Your task to perform on an android device: turn on airplane mode Image 0: 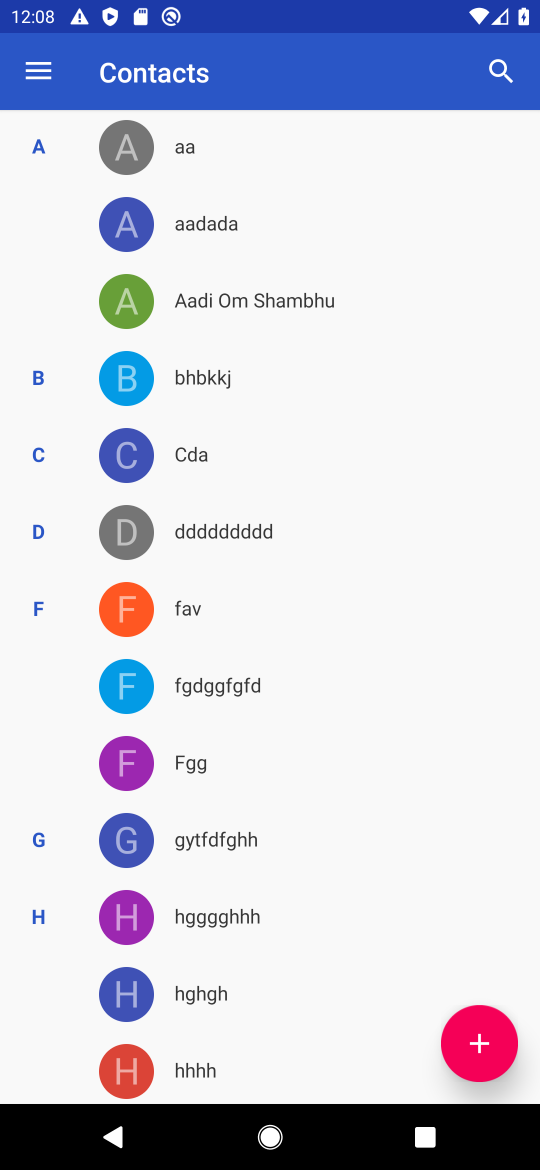
Step 0: drag from (504, 8) to (388, 774)
Your task to perform on an android device: turn on airplane mode Image 1: 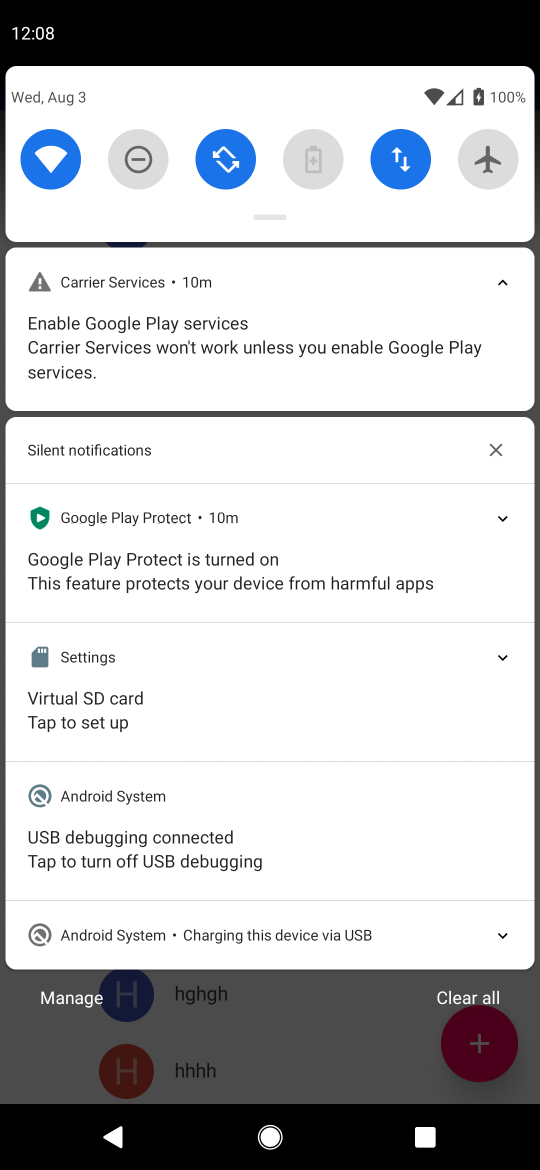
Step 1: click (481, 154)
Your task to perform on an android device: turn on airplane mode Image 2: 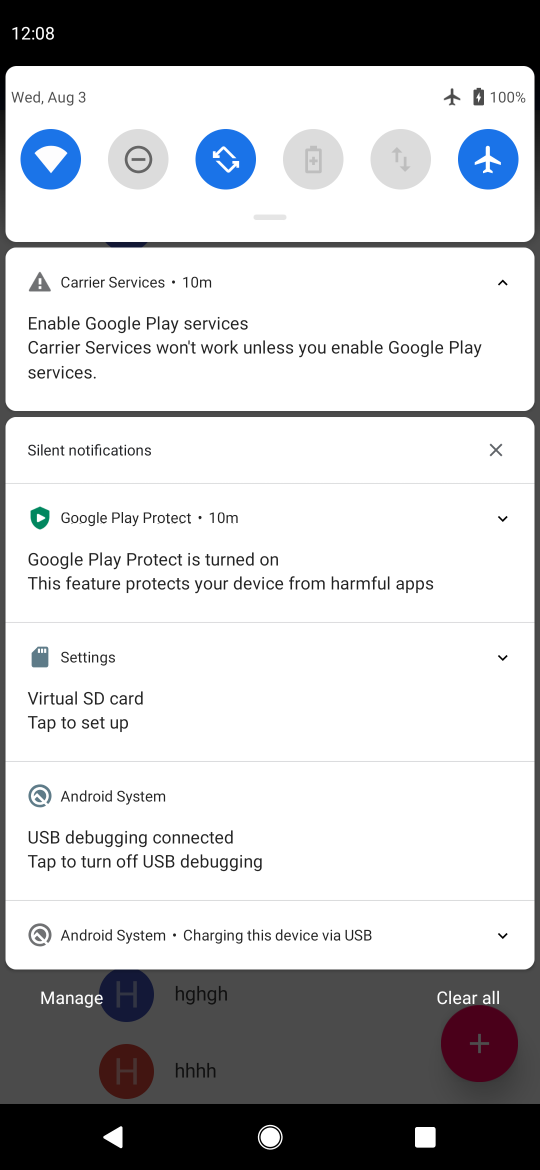
Step 2: task complete